Your task to perform on an android device: read, delete, or share a saved page in the chrome app Image 0: 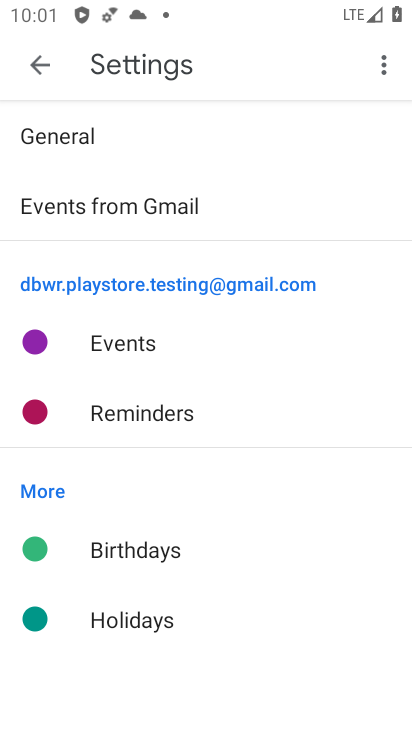
Step 0: press home button
Your task to perform on an android device: read, delete, or share a saved page in the chrome app Image 1: 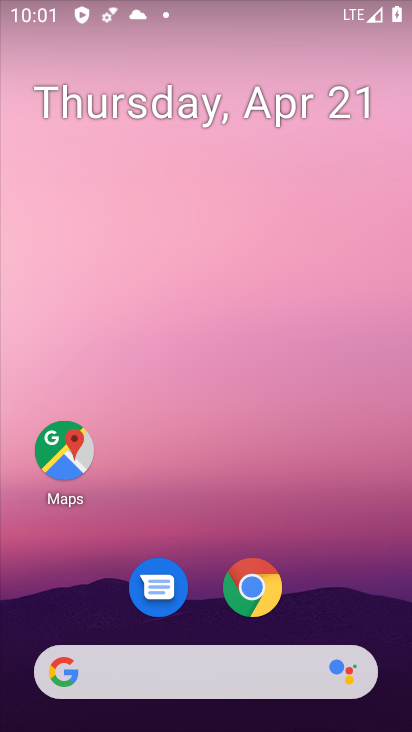
Step 1: drag from (335, 603) to (340, 169)
Your task to perform on an android device: read, delete, or share a saved page in the chrome app Image 2: 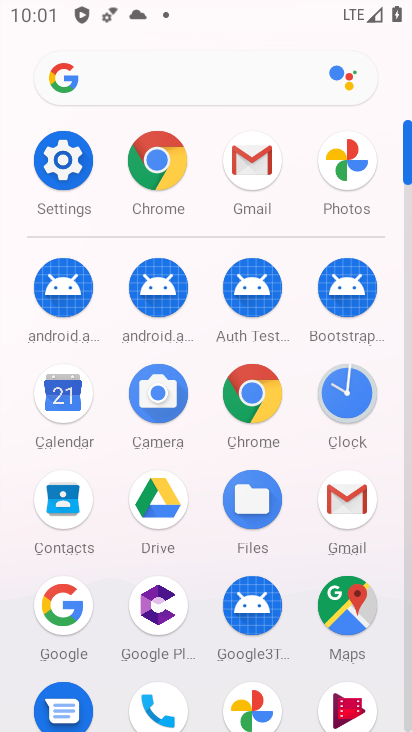
Step 2: click (248, 400)
Your task to perform on an android device: read, delete, or share a saved page in the chrome app Image 3: 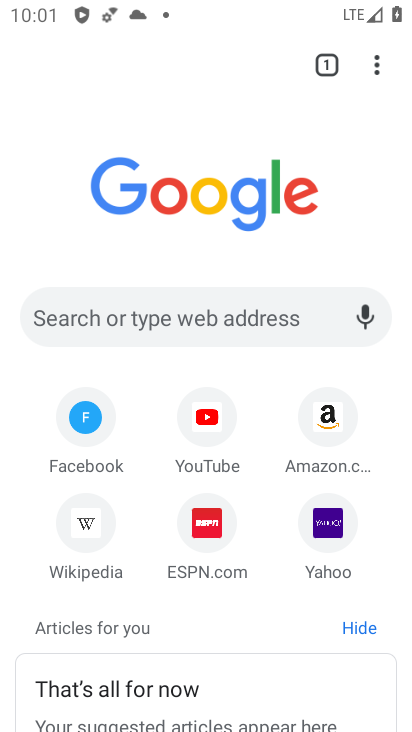
Step 3: click (381, 62)
Your task to perform on an android device: read, delete, or share a saved page in the chrome app Image 4: 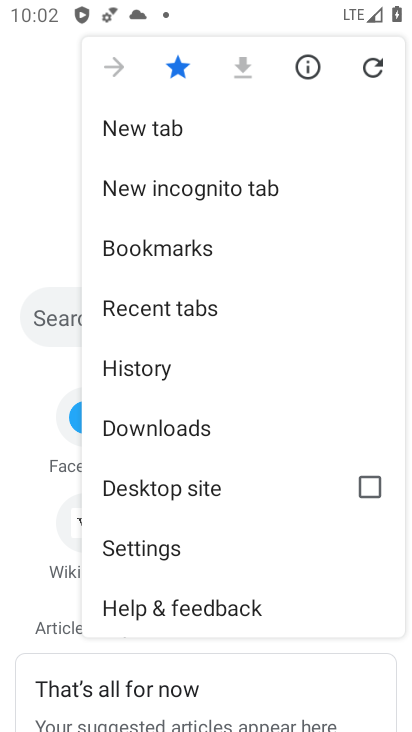
Step 4: drag from (277, 505) to (286, 286)
Your task to perform on an android device: read, delete, or share a saved page in the chrome app Image 5: 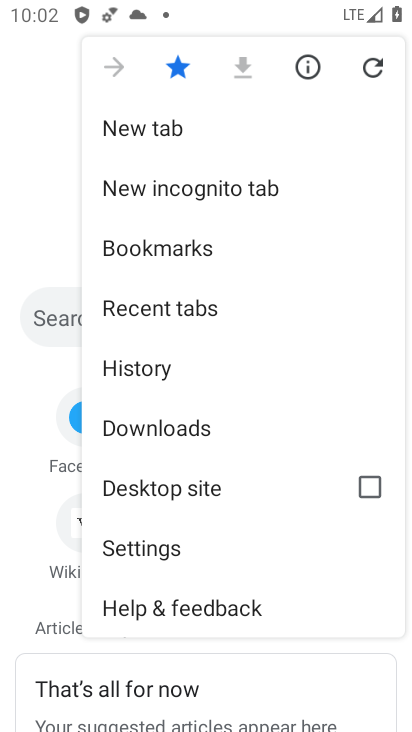
Step 5: click (204, 425)
Your task to perform on an android device: read, delete, or share a saved page in the chrome app Image 6: 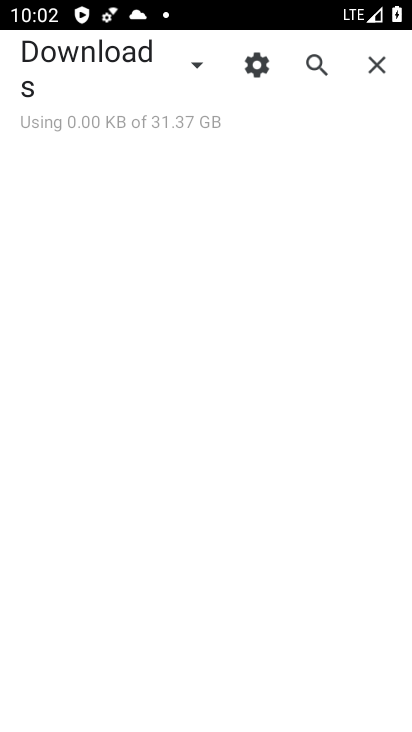
Step 6: click (198, 56)
Your task to perform on an android device: read, delete, or share a saved page in the chrome app Image 7: 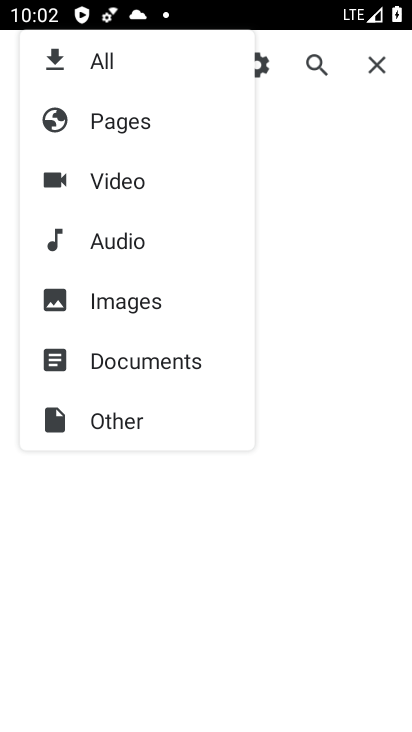
Step 7: click (126, 123)
Your task to perform on an android device: read, delete, or share a saved page in the chrome app Image 8: 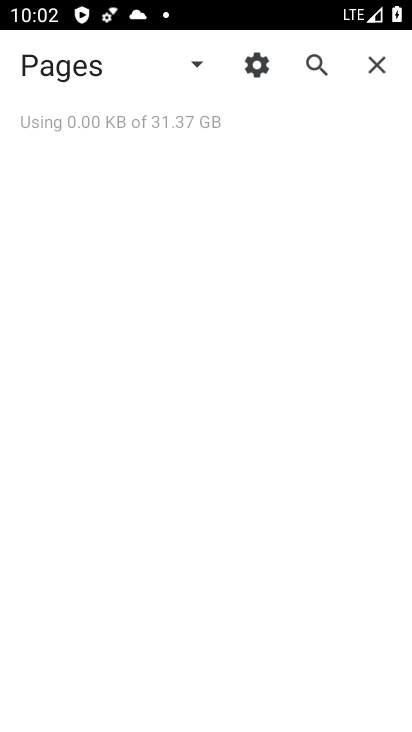
Step 8: task complete